Your task to perform on an android device: Search for a custom made wallet on Etsy Image 0: 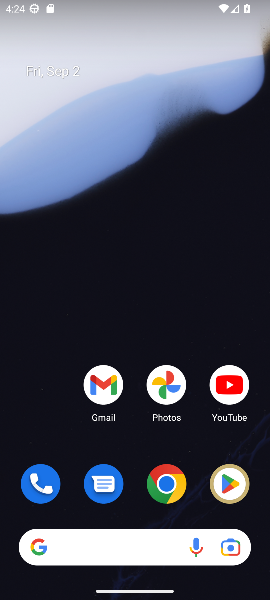
Step 0: click (164, 484)
Your task to perform on an android device: Search for a custom made wallet on Etsy Image 1: 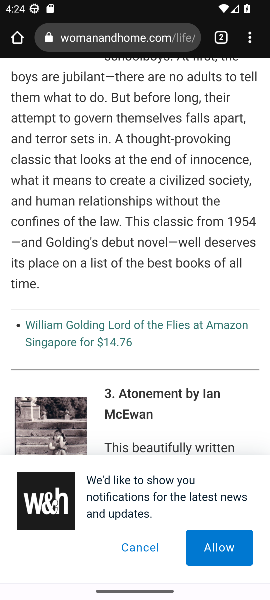
Step 1: click (147, 39)
Your task to perform on an android device: Search for a custom made wallet on Etsy Image 2: 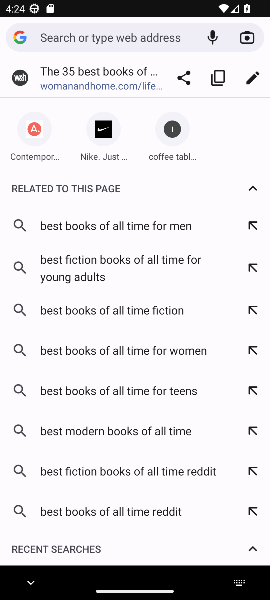
Step 2: type " Etsy"
Your task to perform on an android device: Search for a custom made wallet on Etsy Image 3: 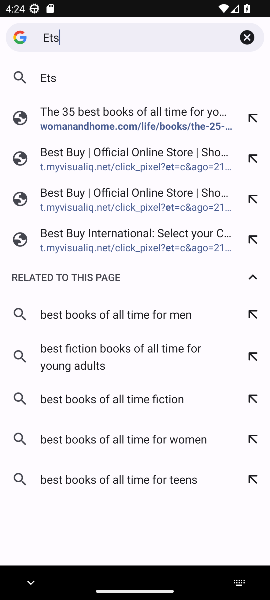
Step 3: press enter
Your task to perform on an android device: Search for a custom made wallet on Etsy Image 4: 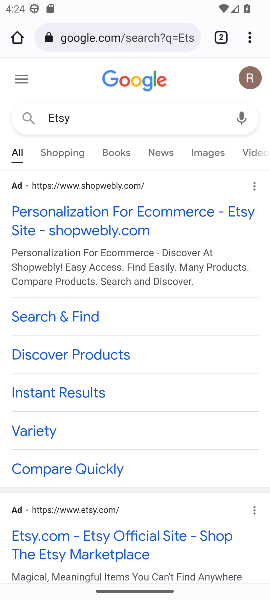
Step 4: click (97, 541)
Your task to perform on an android device: Search for a custom made wallet on Etsy Image 5: 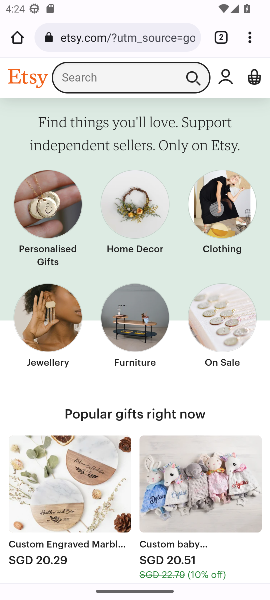
Step 5: click (145, 73)
Your task to perform on an android device: Search for a custom made wallet on Etsy Image 6: 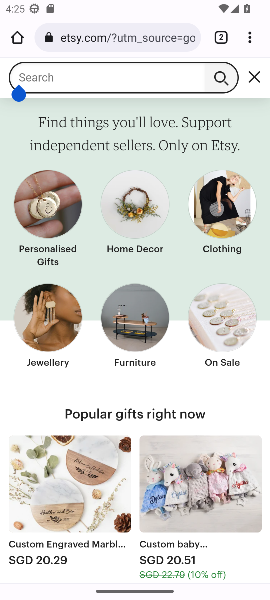
Step 6: type "custom made wallet"
Your task to perform on an android device: Search for a custom made wallet on Etsy Image 7: 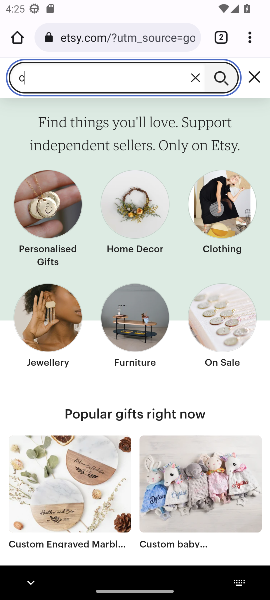
Step 7: press enter
Your task to perform on an android device: Search for a custom made wallet on Etsy Image 8: 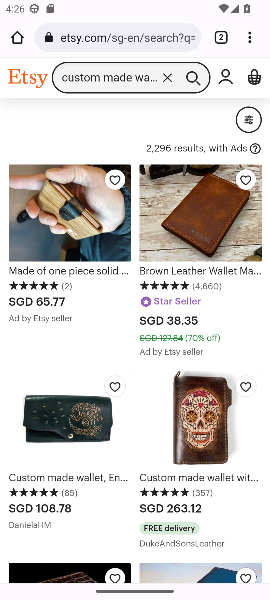
Step 8: task complete